Your task to perform on an android device: toggle notifications settings in the gmail app Image 0: 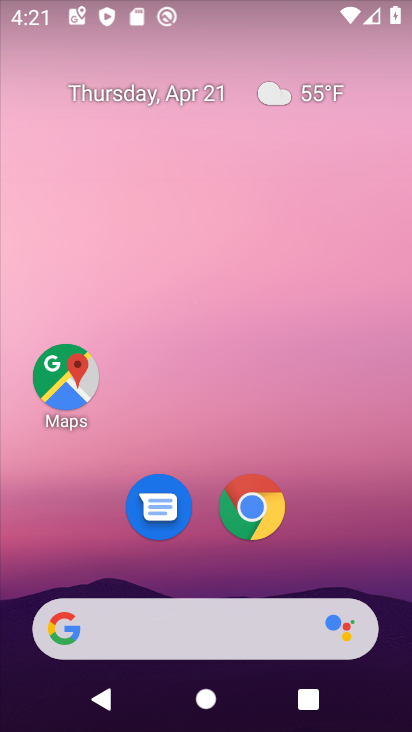
Step 0: drag from (331, 542) to (257, 118)
Your task to perform on an android device: toggle notifications settings in the gmail app Image 1: 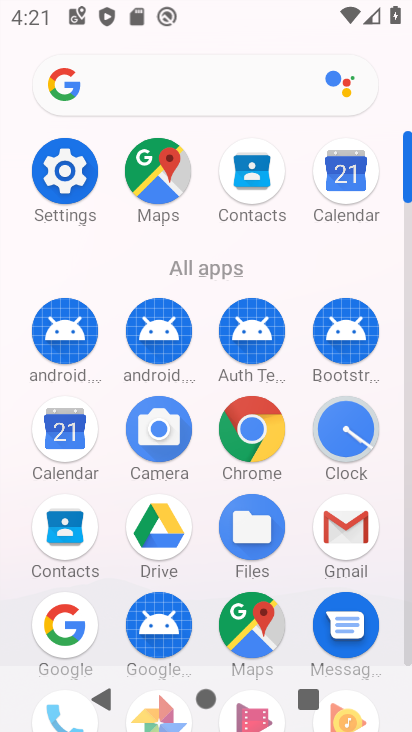
Step 1: click (360, 518)
Your task to perform on an android device: toggle notifications settings in the gmail app Image 2: 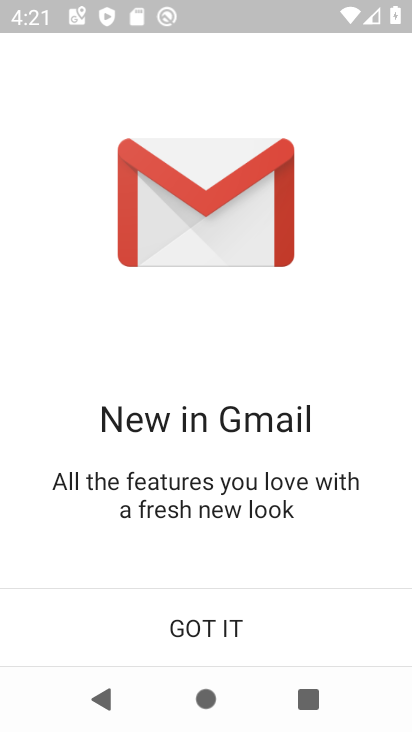
Step 2: click (231, 641)
Your task to perform on an android device: toggle notifications settings in the gmail app Image 3: 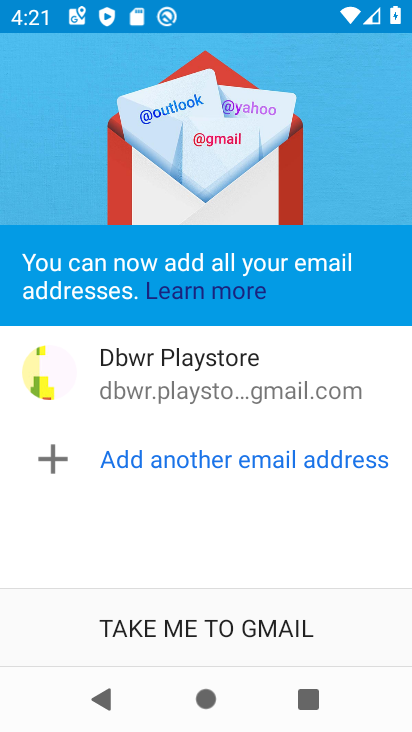
Step 3: click (228, 633)
Your task to perform on an android device: toggle notifications settings in the gmail app Image 4: 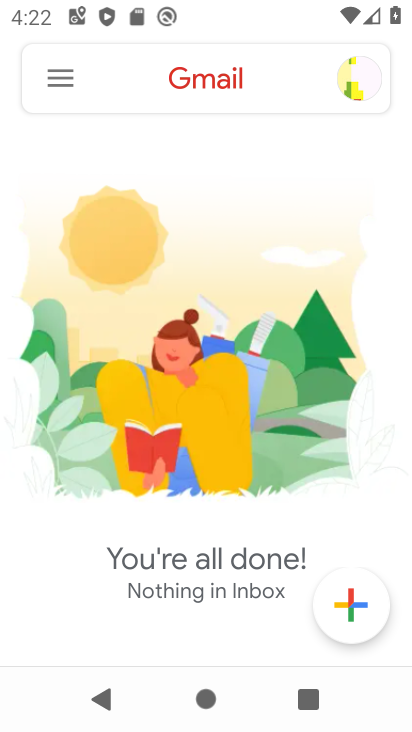
Step 4: click (42, 76)
Your task to perform on an android device: toggle notifications settings in the gmail app Image 5: 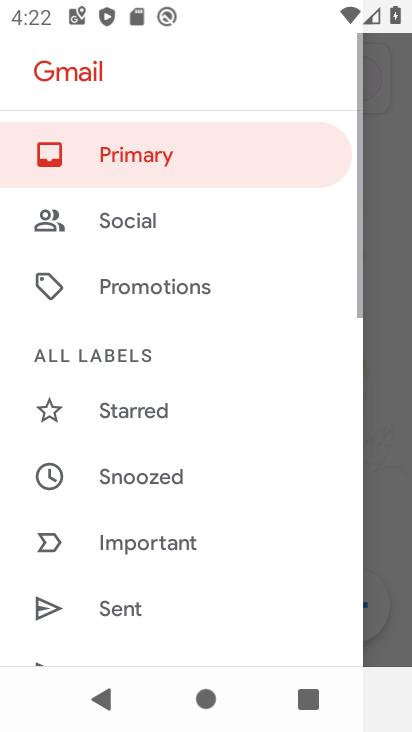
Step 5: drag from (239, 585) to (211, 169)
Your task to perform on an android device: toggle notifications settings in the gmail app Image 6: 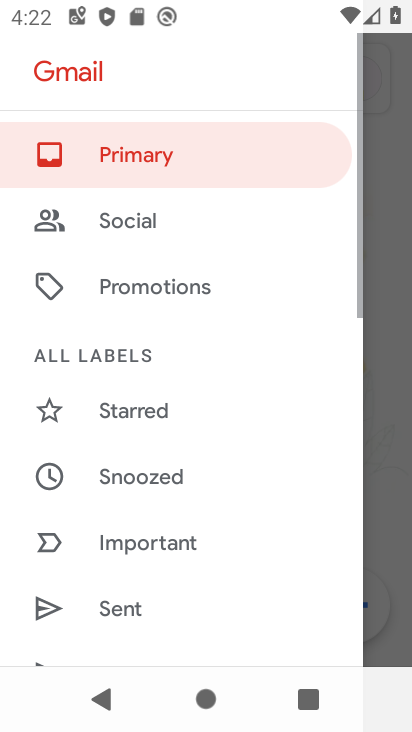
Step 6: drag from (225, 596) to (329, 271)
Your task to perform on an android device: toggle notifications settings in the gmail app Image 7: 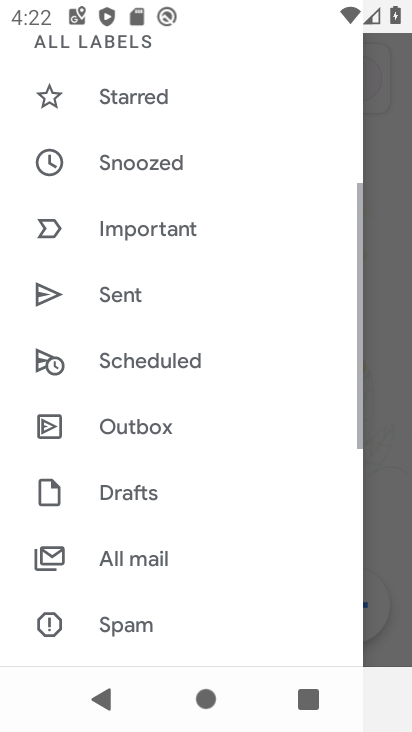
Step 7: drag from (203, 599) to (302, 202)
Your task to perform on an android device: toggle notifications settings in the gmail app Image 8: 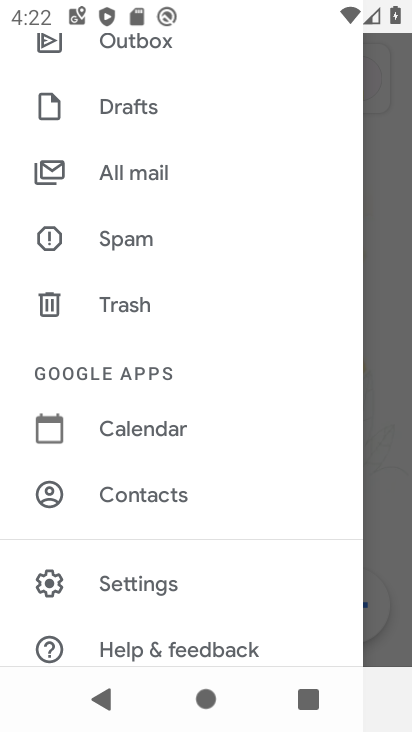
Step 8: click (156, 598)
Your task to perform on an android device: toggle notifications settings in the gmail app Image 9: 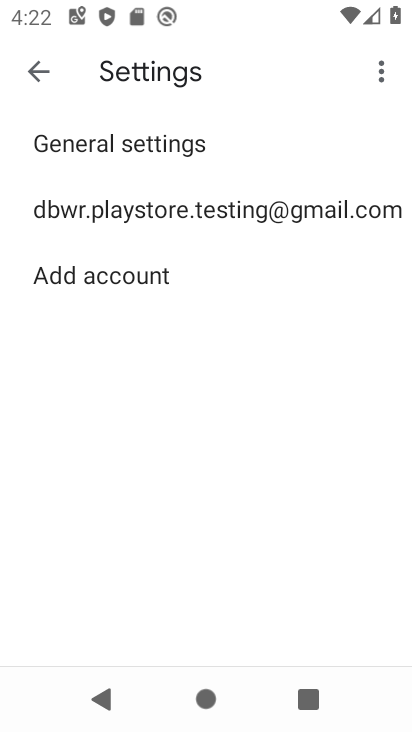
Step 9: click (111, 224)
Your task to perform on an android device: toggle notifications settings in the gmail app Image 10: 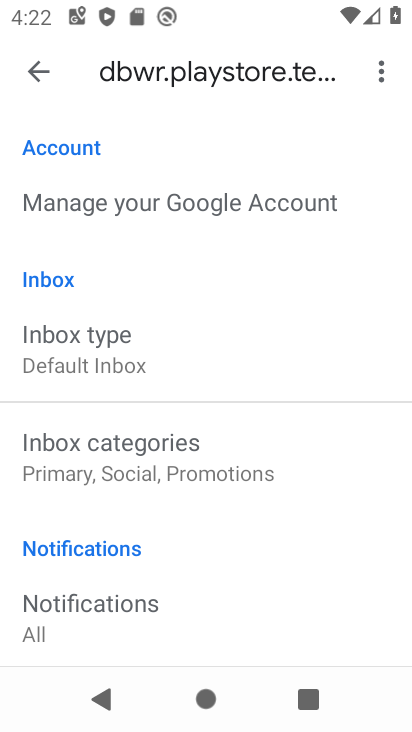
Step 10: click (102, 624)
Your task to perform on an android device: toggle notifications settings in the gmail app Image 11: 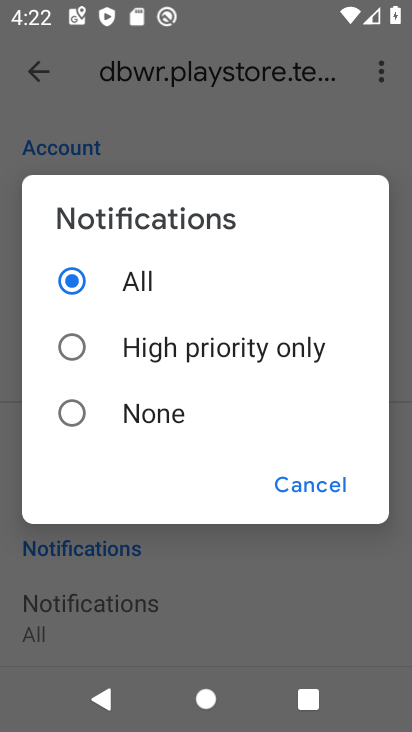
Step 11: click (59, 353)
Your task to perform on an android device: toggle notifications settings in the gmail app Image 12: 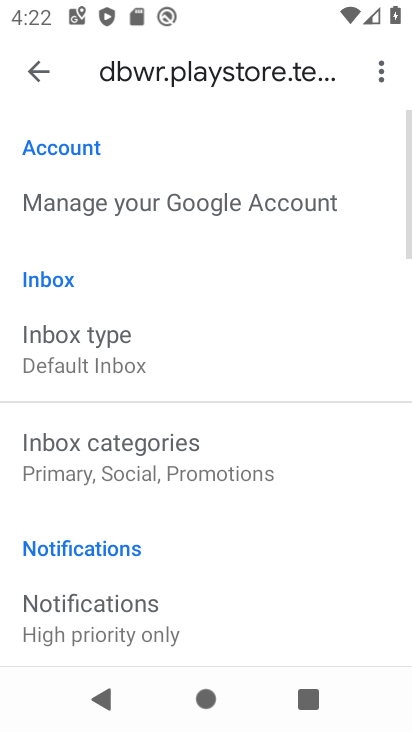
Step 12: task complete